Your task to perform on an android device: find which apps use the phone's location Image 0: 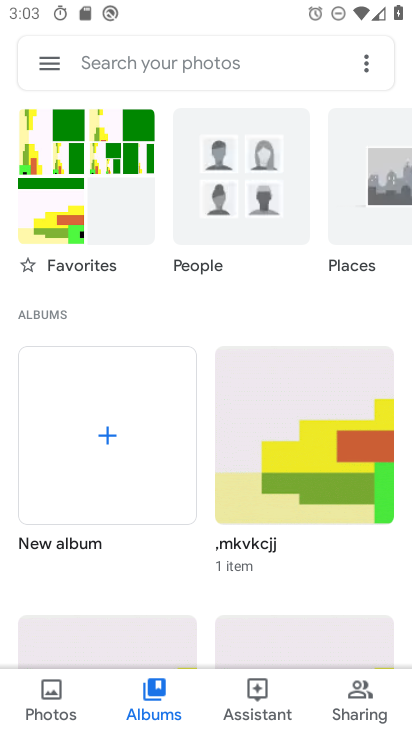
Step 0: press home button
Your task to perform on an android device: find which apps use the phone's location Image 1: 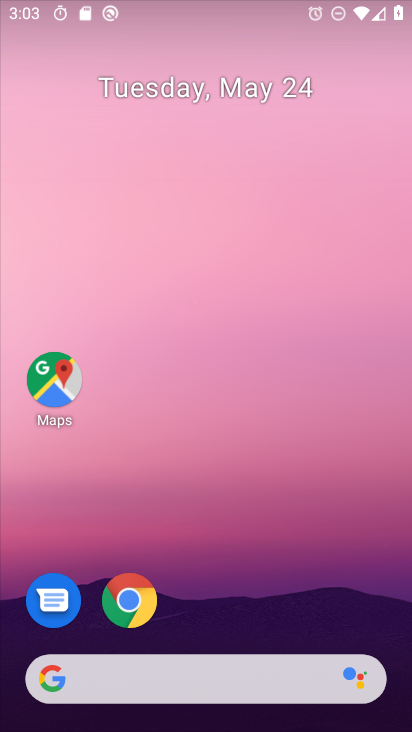
Step 1: drag from (203, 692) to (245, 158)
Your task to perform on an android device: find which apps use the phone's location Image 2: 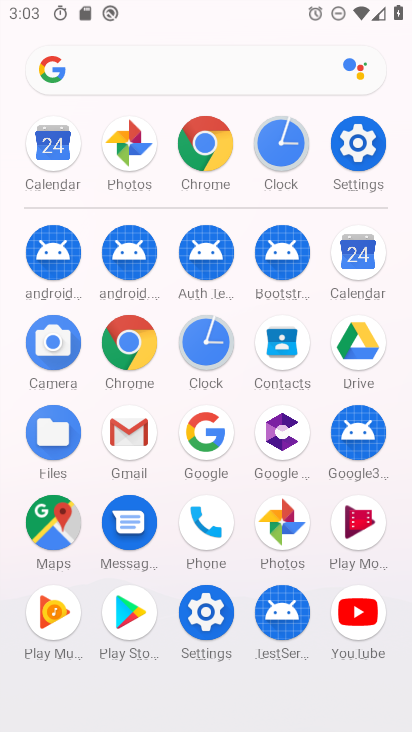
Step 2: click (352, 148)
Your task to perform on an android device: find which apps use the phone's location Image 3: 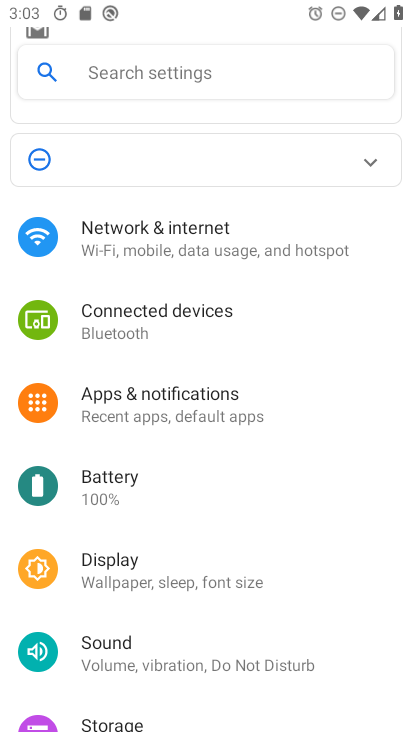
Step 3: drag from (114, 635) to (196, 207)
Your task to perform on an android device: find which apps use the phone's location Image 4: 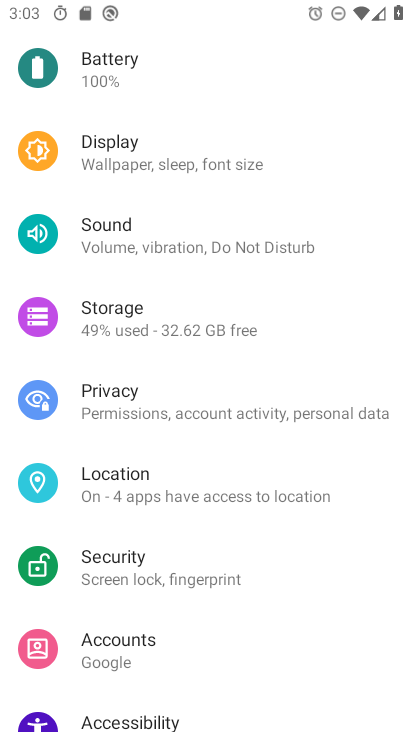
Step 4: click (157, 510)
Your task to perform on an android device: find which apps use the phone's location Image 5: 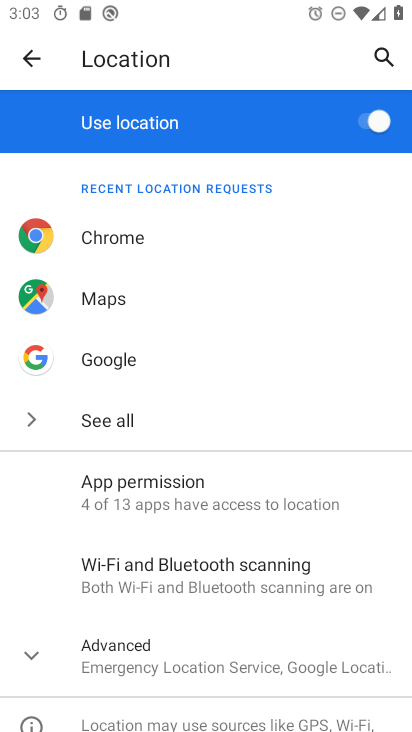
Step 5: click (167, 499)
Your task to perform on an android device: find which apps use the phone's location Image 6: 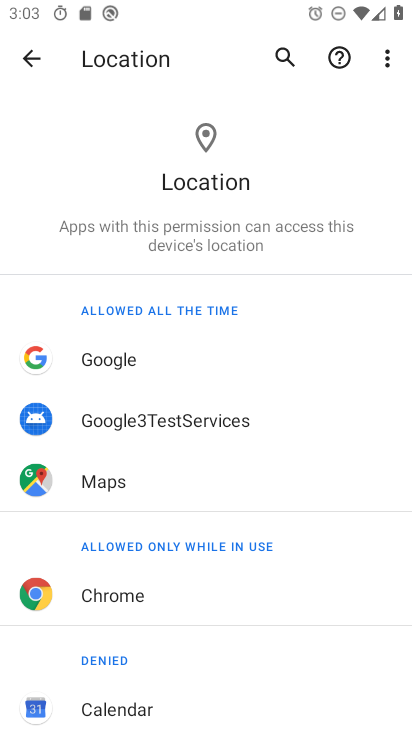
Step 6: task complete